Your task to perform on an android device: Open calendar and show me the first week of next month Image 0: 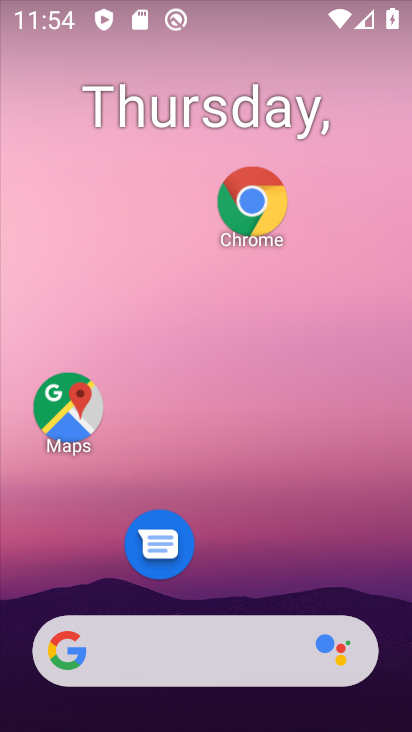
Step 0: drag from (219, 609) to (248, 23)
Your task to perform on an android device: Open calendar and show me the first week of next month Image 1: 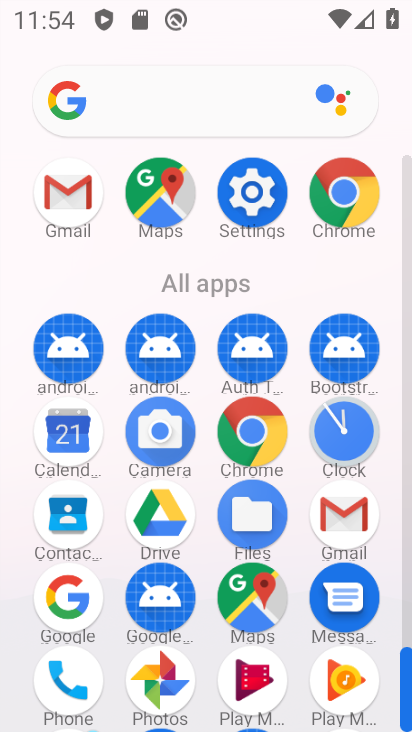
Step 1: click (64, 431)
Your task to perform on an android device: Open calendar and show me the first week of next month Image 2: 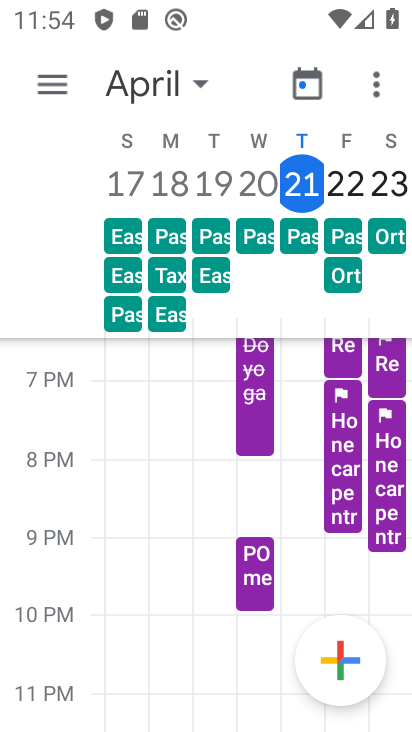
Step 2: task complete